Your task to perform on an android device: turn on wifi Image 0: 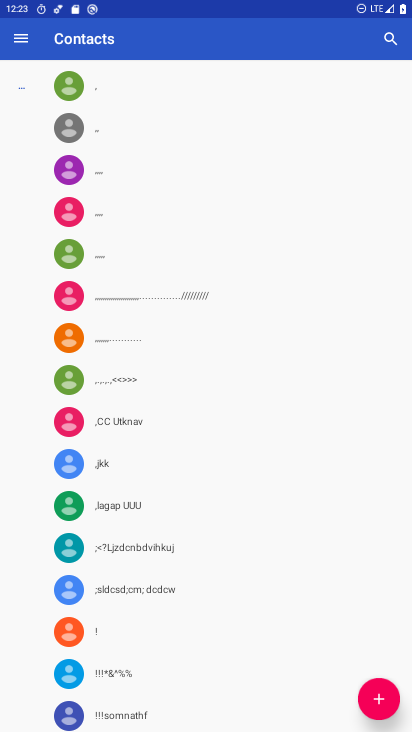
Step 0: press home button
Your task to perform on an android device: turn on wifi Image 1: 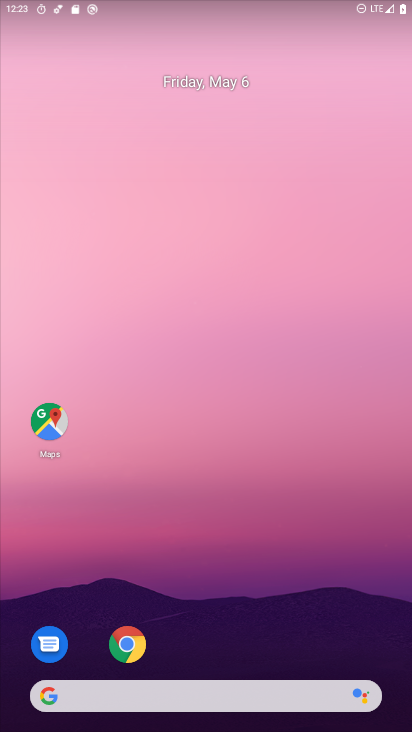
Step 1: drag from (367, 610) to (360, 175)
Your task to perform on an android device: turn on wifi Image 2: 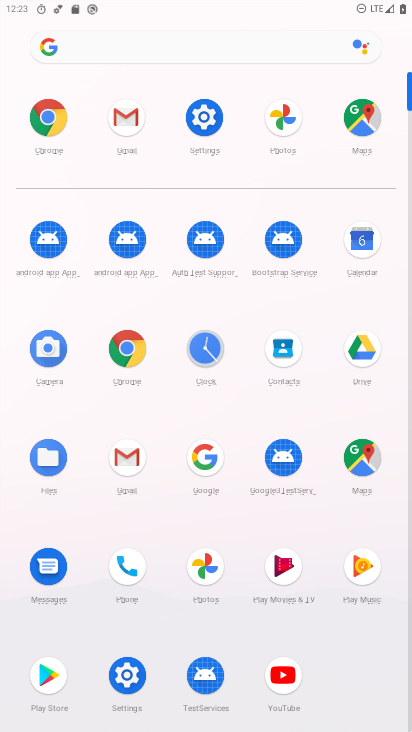
Step 2: click (125, 669)
Your task to perform on an android device: turn on wifi Image 3: 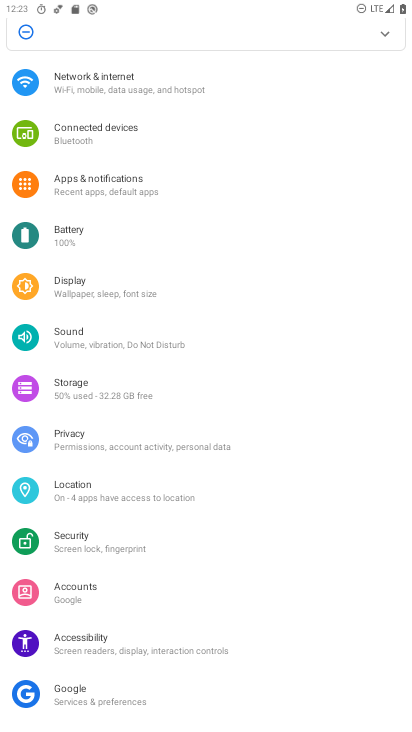
Step 3: click (124, 93)
Your task to perform on an android device: turn on wifi Image 4: 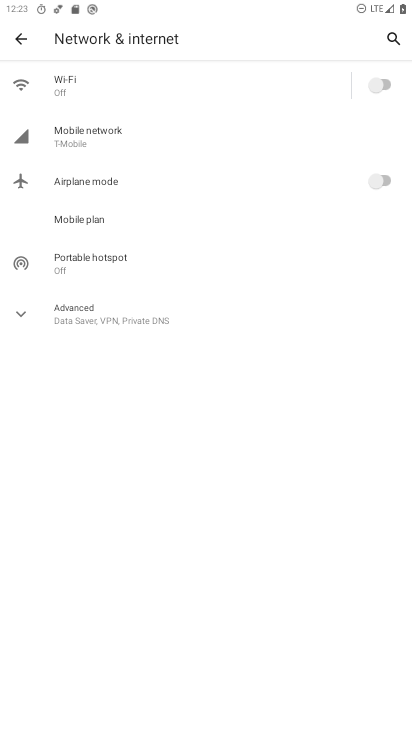
Step 4: click (388, 82)
Your task to perform on an android device: turn on wifi Image 5: 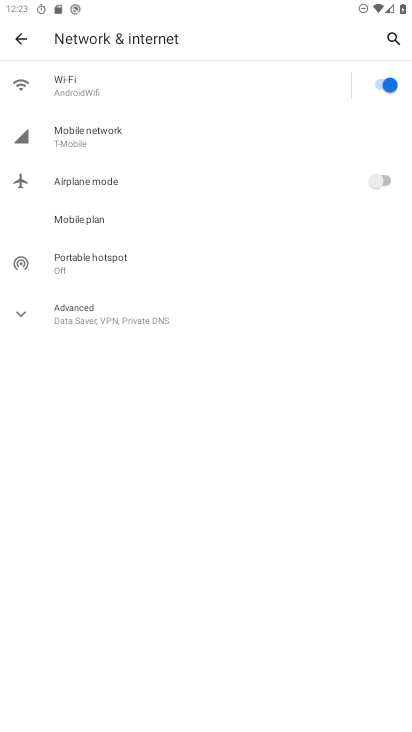
Step 5: task complete